Your task to perform on an android device: stop showing notifications on the lock screen Image 0: 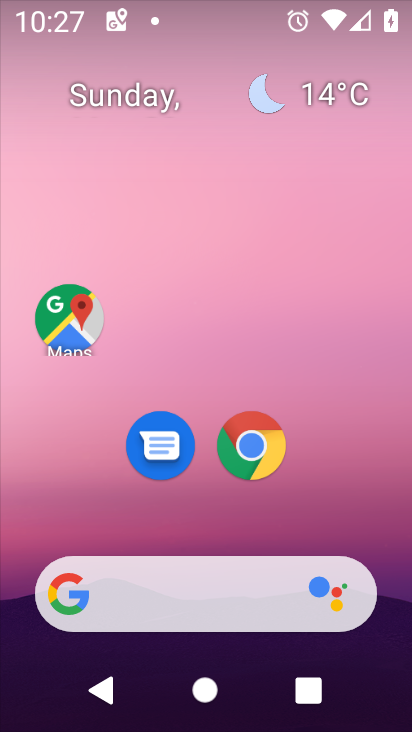
Step 0: drag from (215, 497) to (228, 117)
Your task to perform on an android device: stop showing notifications on the lock screen Image 1: 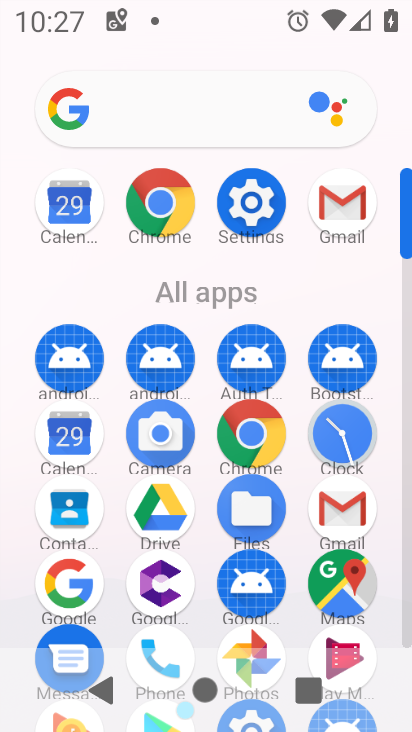
Step 1: click (244, 218)
Your task to perform on an android device: stop showing notifications on the lock screen Image 2: 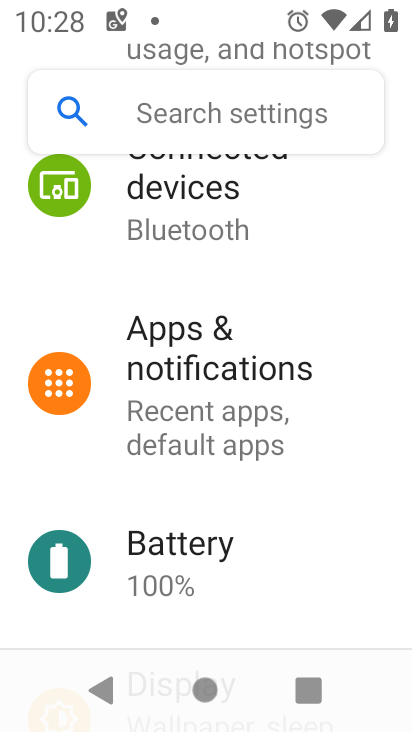
Step 2: click (204, 413)
Your task to perform on an android device: stop showing notifications on the lock screen Image 3: 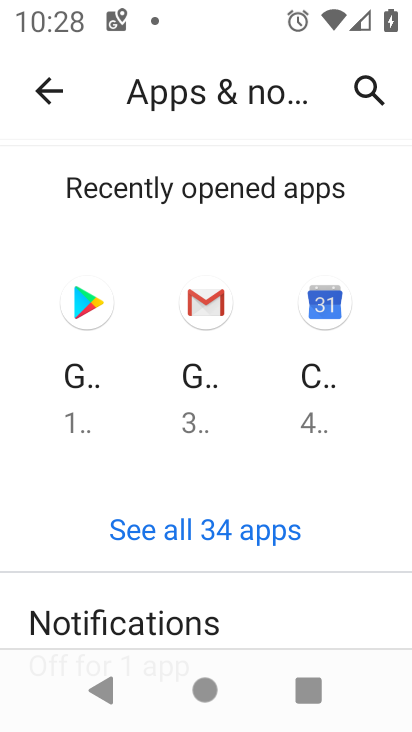
Step 3: drag from (198, 571) to (237, 144)
Your task to perform on an android device: stop showing notifications on the lock screen Image 4: 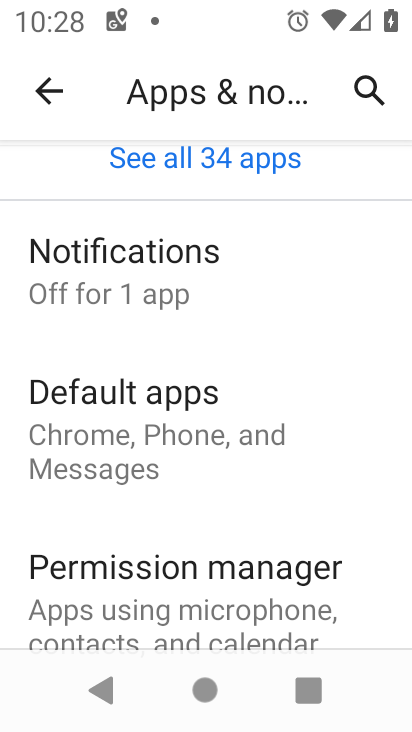
Step 4: click (151, 273)
Your task to perform on an android device: stop showing notifications on the lock screen Image 5: 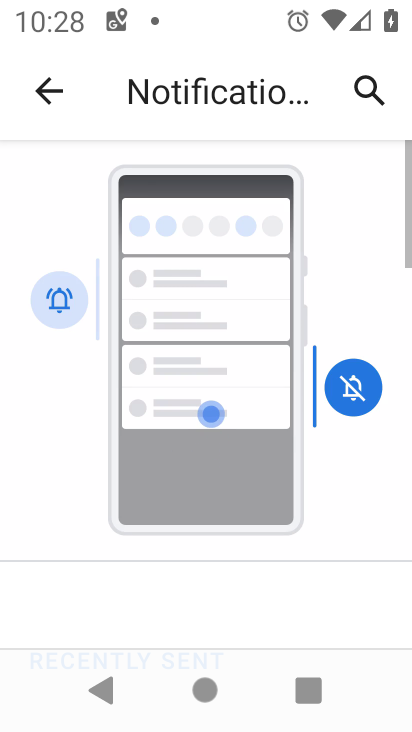
Step 5: drag from (187, 598) to (341, 53)
Your task to perform on an android device: stop showing notifications on the lock screen Image 6: 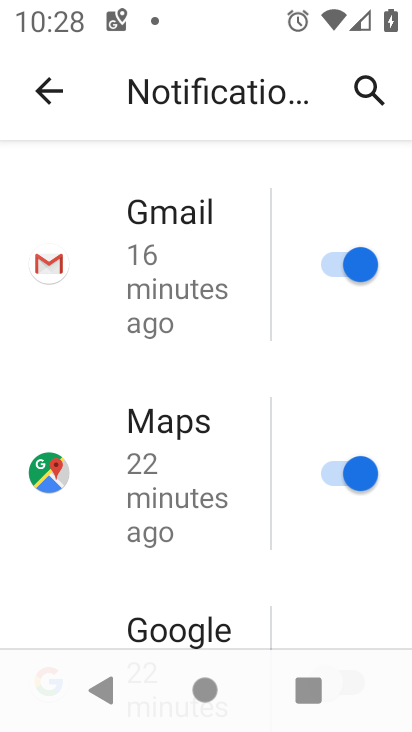
Step 6: drag from (227, 498) to (315, 31)
Your task to perform on an android device: stop showing notifications on the lock screen Image 7: 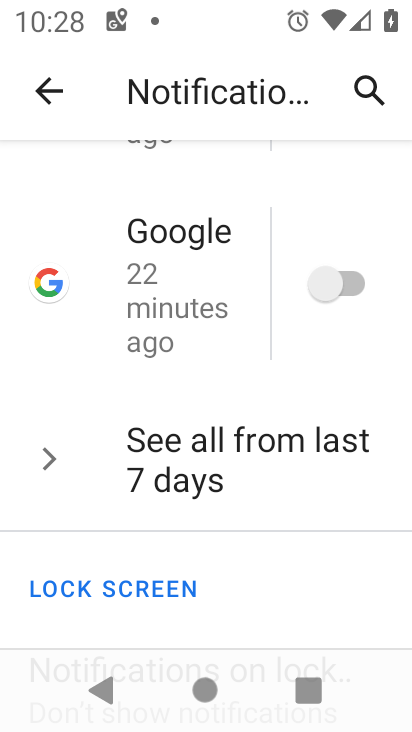
Step 7: drag from (165, 605) to (205, 206)
Your task to perform on an android device: stop showing notifications on the lock screen Image 8: 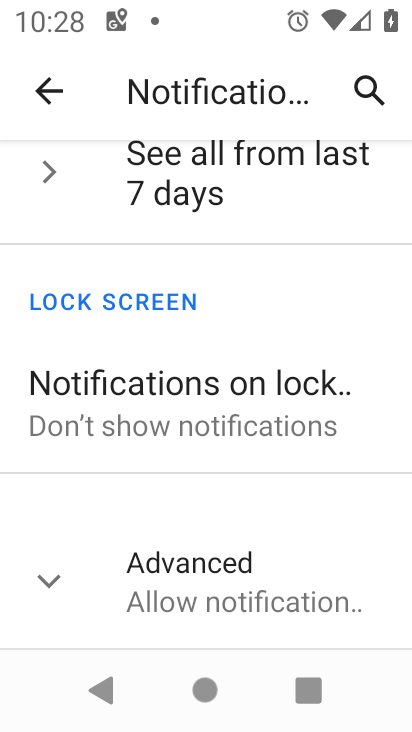
Step 8: click (162, 401)
Your task to perform on an android device: stop showing notifications on the lock screen Image 9: 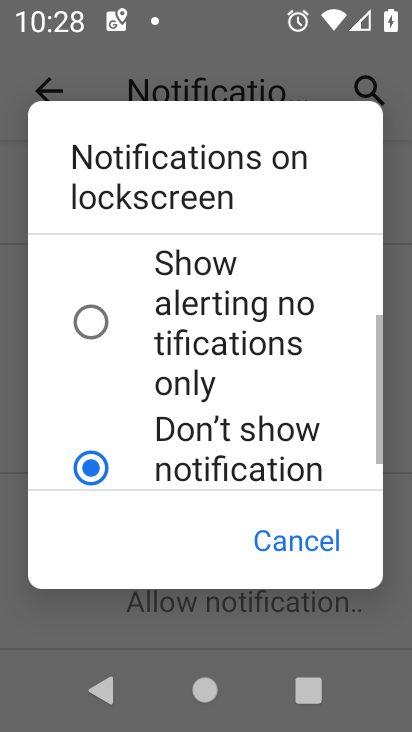
Step 9: task complete